Your task to perform on an android device: Empty the shopping cart on costco. Add "razer kraken" to the cart on costco Image 0: 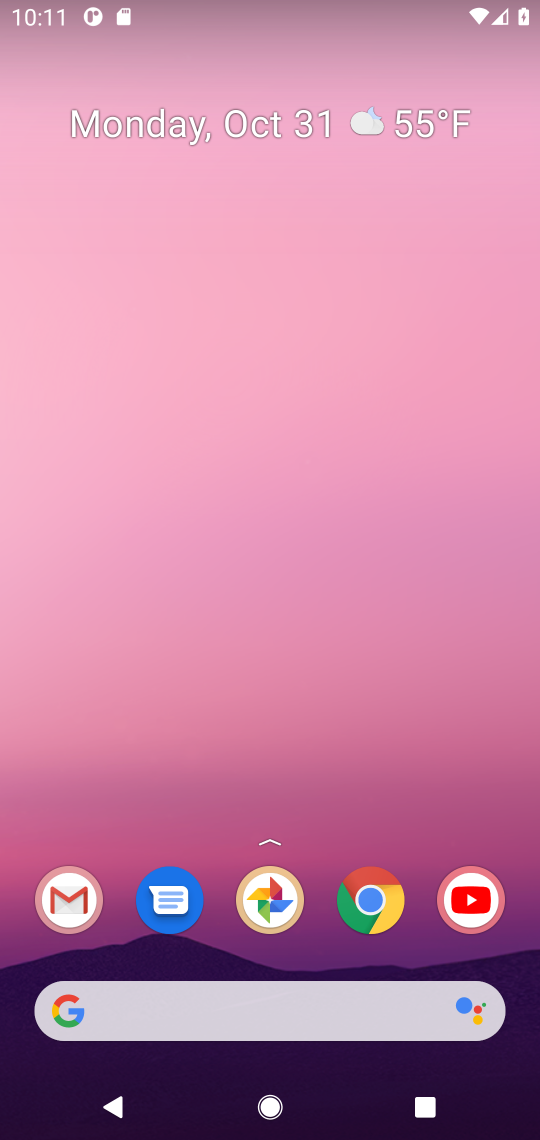
Step 0: click (365, 905)
Your task to perform on an android device: Empty the shopping cart on costco. Add "razer kraken" to the cart on costco Image 1: 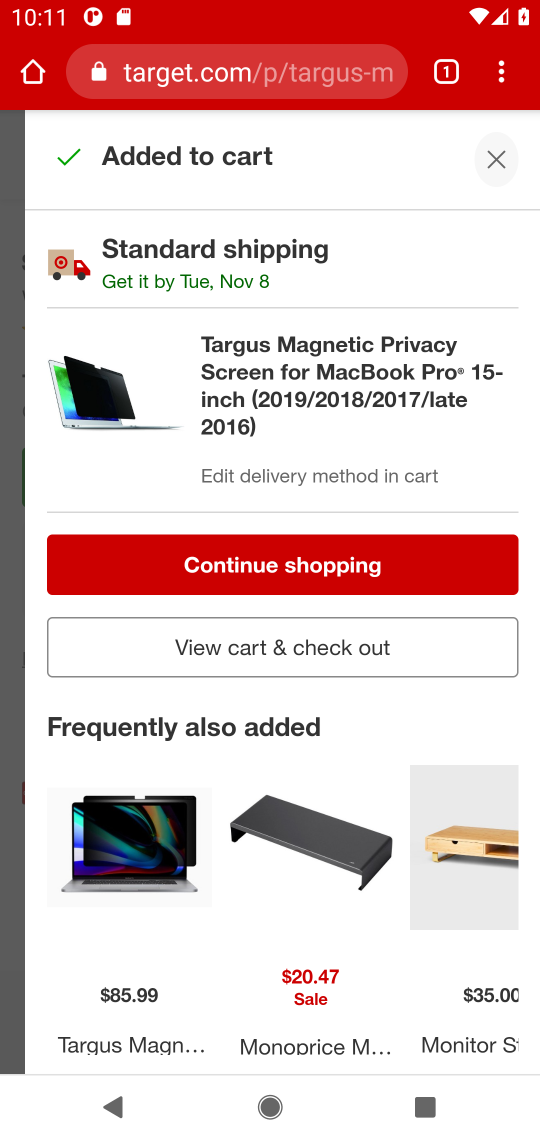
Step 1: click (299, 79)
Your task to perform on an android device: Empty the shopping cart on costco. Add "razer kraken" to the cart on costco Image 2: 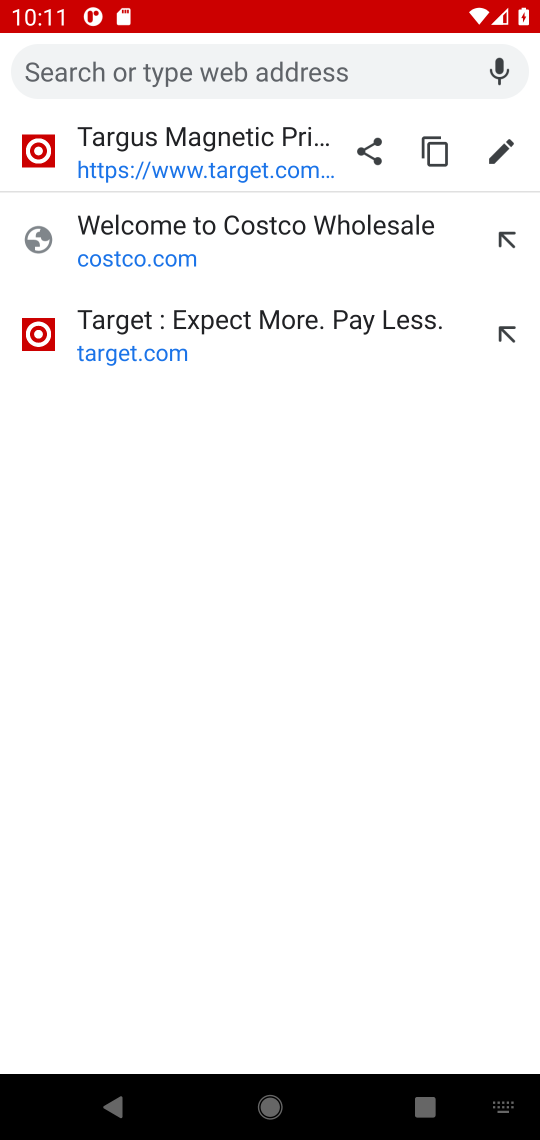
Step 2: type "costco.com"
Your task to perform on an android device: Empty the shopping cart on costco. Add "razer kraken" to the cart on costco Image 3: 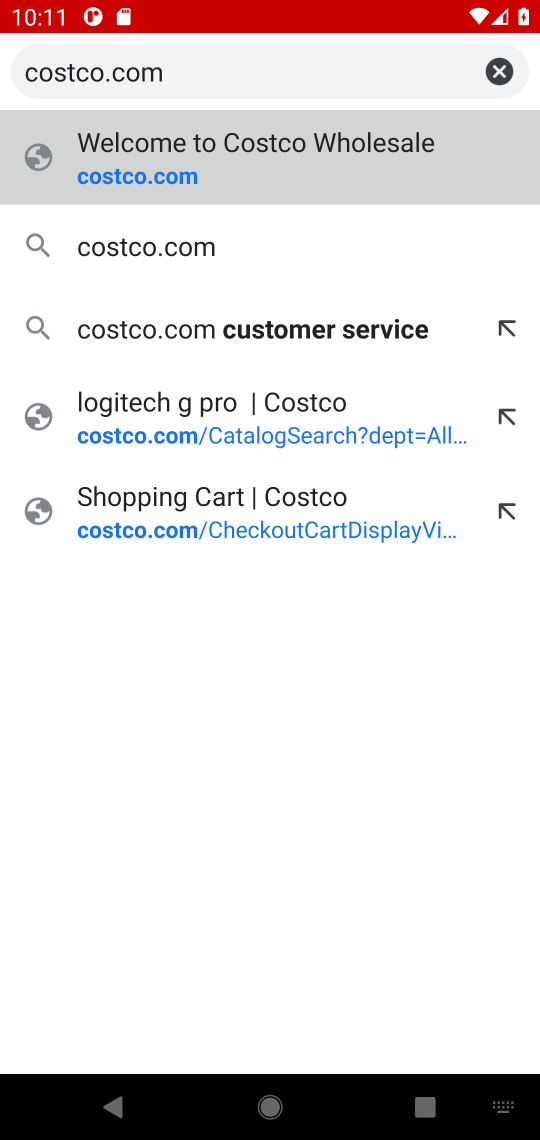
Step 3: click (150, 136)
Your task to perform on an android device: Empty the shopping cart on costco. Add "razer kraken" to the cart on costco Image 4: 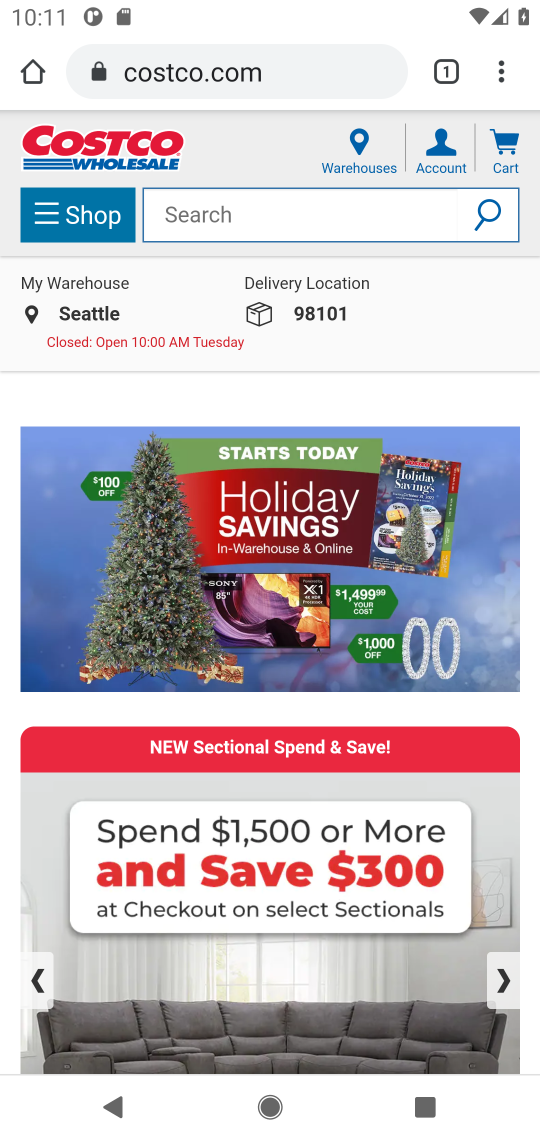
Step 4: click (507, 151)
Your task to perform on an android device: Empty the shopping cart on costco. Add "razer kraken" to the cart on costco Image 5: 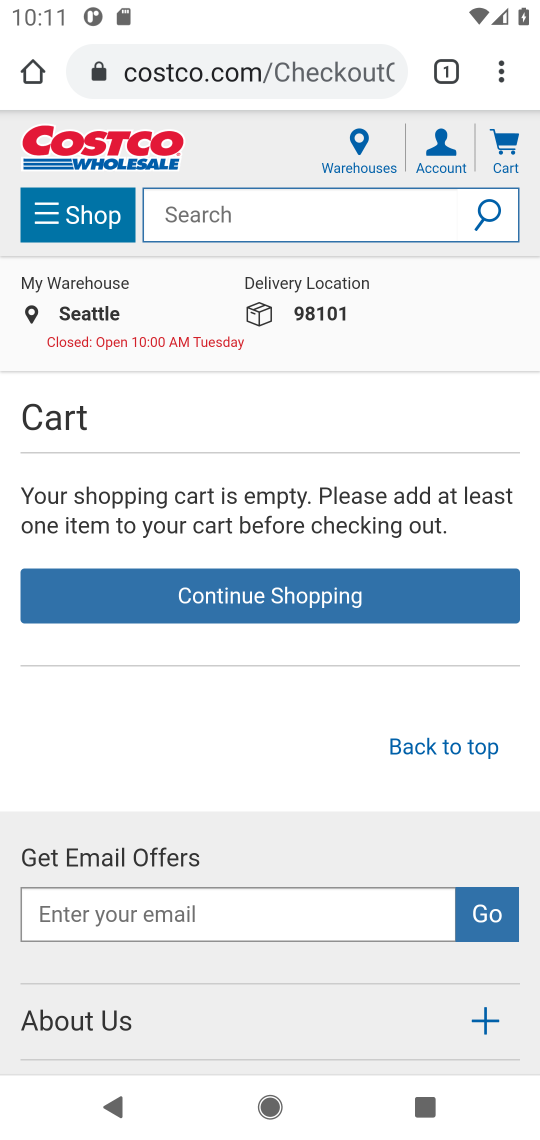
Step 5: click (247, 213)
Your task to perform on an android device: Empty the shopping cart on costco. Add "razer kraken" to the cart on costco Image 6: 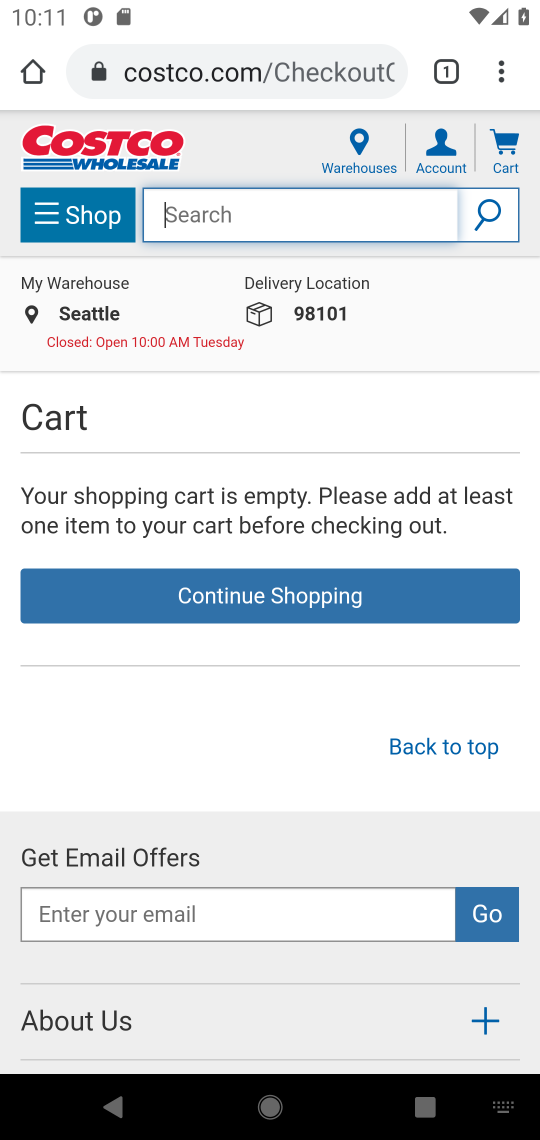
Step 6: type "razer kraken"
Your task to perform on an android device: Empty the shopping cart on costco. Add "razer kraken" to the cart on costco Image 7: 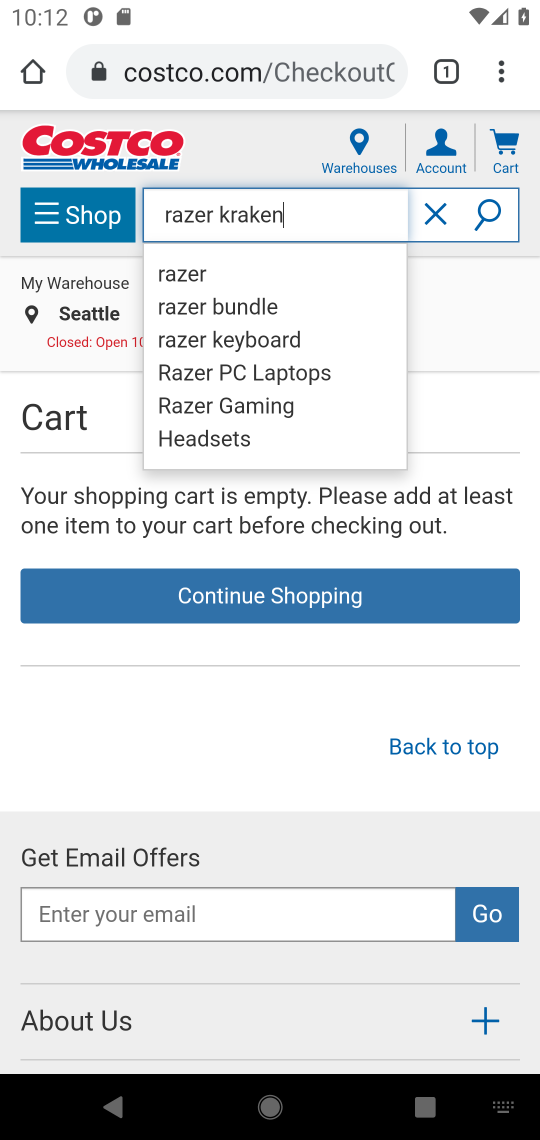
Step 7: click (477, 228)
Your task to perform on an android device: Empty the shopping cart on costco. Add "razer kraken" to the cart on costco Image 8: 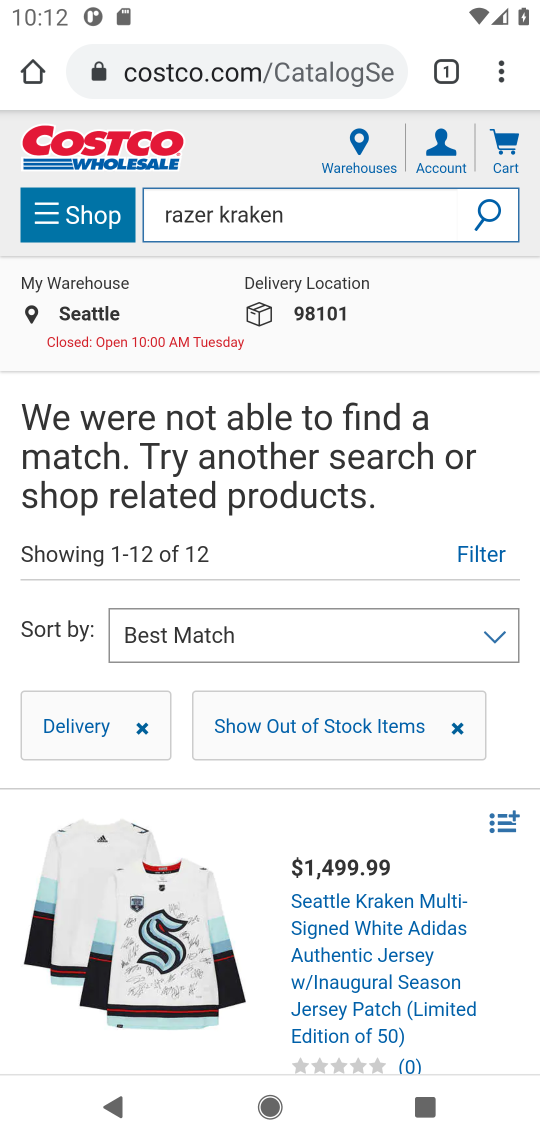
Step 8: task complete